Your task to perform on an android device: Open Yahoo.com Image 0: 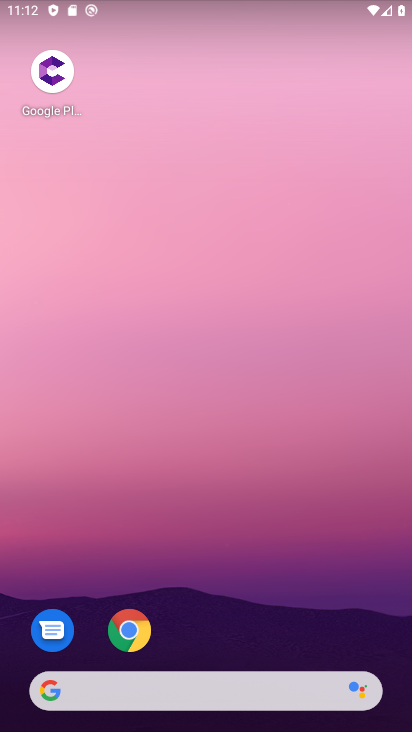
Step 0: click (142, 626)
Your task to perform on an android device: Open Yahoo.com Image 1: 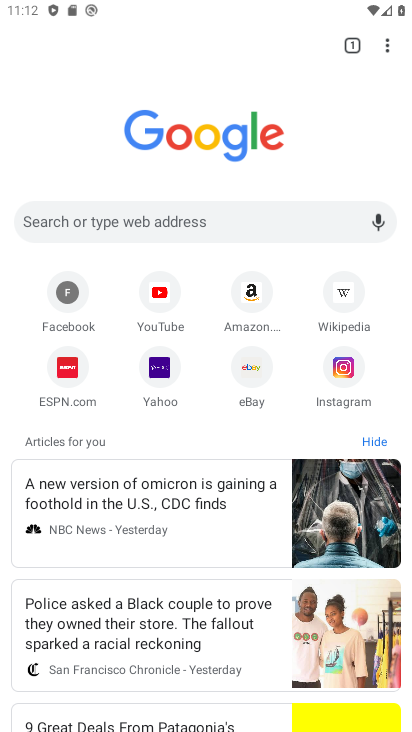
Step 1: click (162, 370)
Your task to perform on an android device: Open Yahoo.com Image 2: 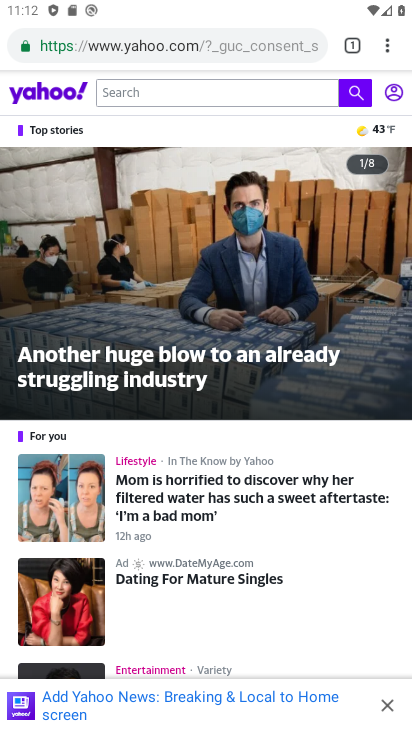
Step 2: task complete